Your task to perform on an android device: install app "LiveIn - Share Your Moment" Image 0: 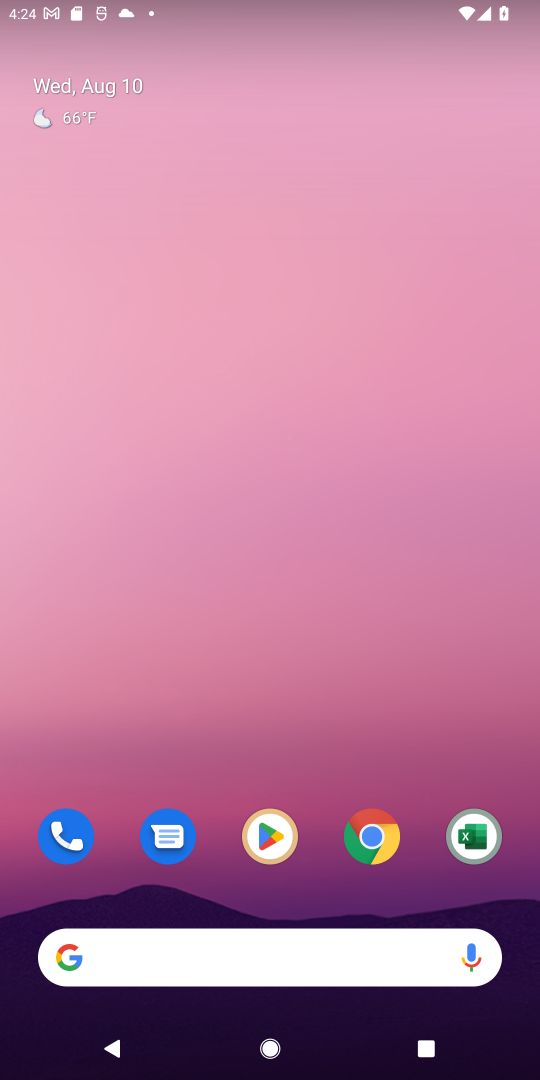
Step 0: drag from (114, 976) to (171, 398)
Your task to perform on an android device: install app "LiveIn - Share Your Moment" Image 1: 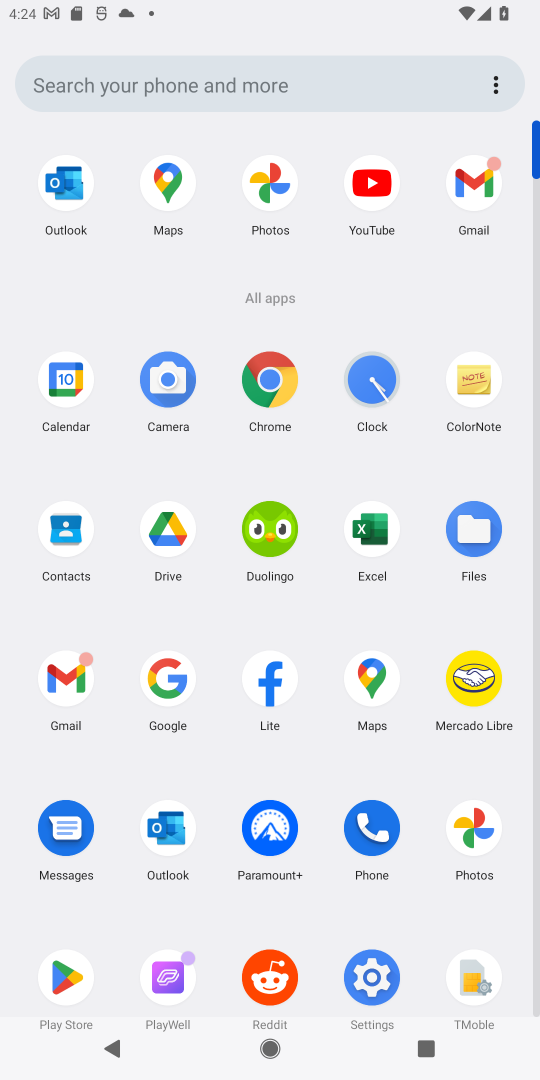
Step 1: drag from (210, 800) to (298, 254)
Your task to perform on an android device: install app "LiveIn - Share Your Moment" Image 2: 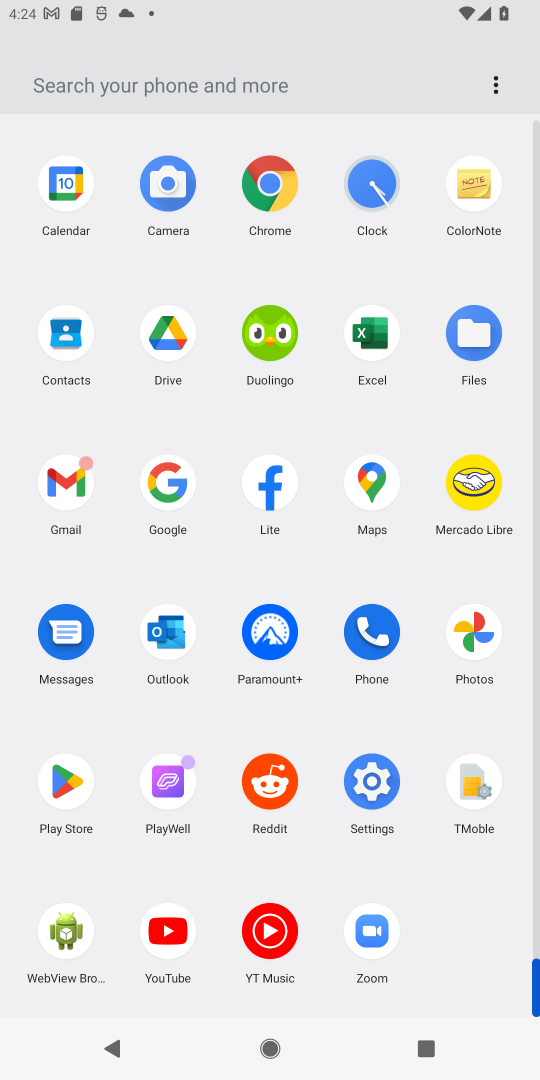
Step 2: click (61, 783)
Your task to perform on an android device: install app "LiveIn - Share Your Moment" Image 3: 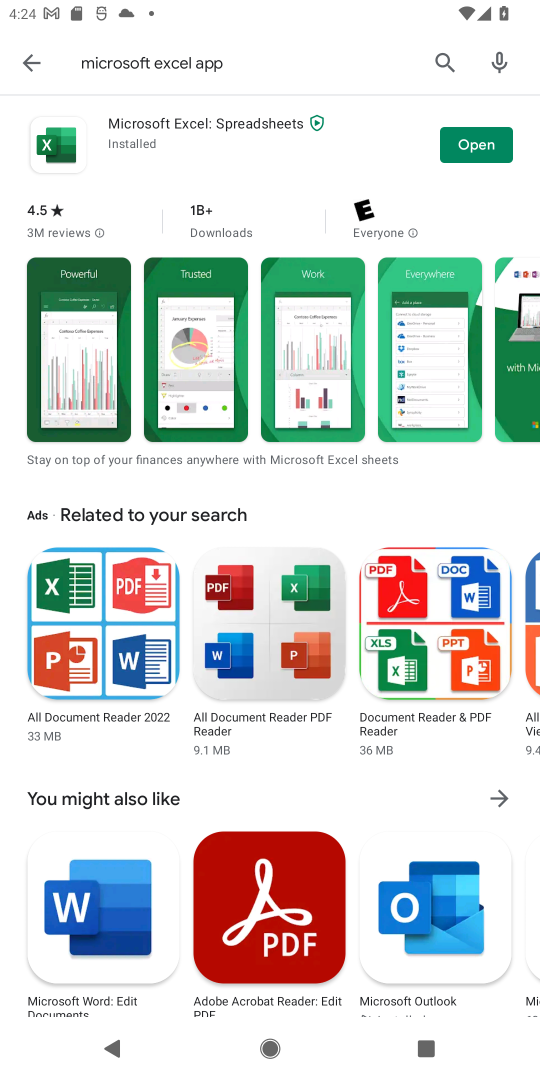
Step 3: click (34, 48)
Your task to perform on an android device: install app "LiveIn - Share Your Moment" Image 4: 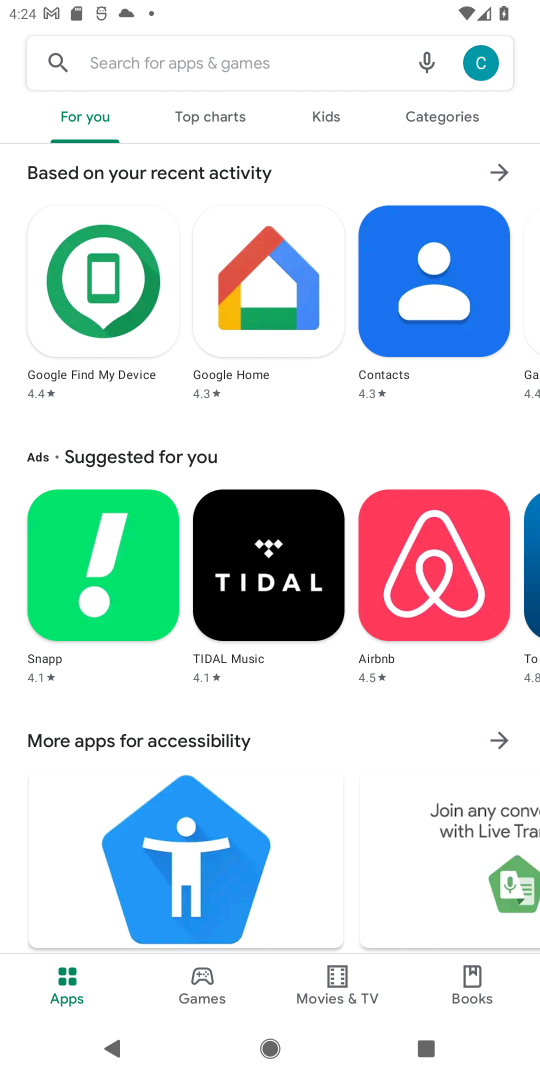
Step 4: click (294, 57)
Your task to perform on an android device: install app "LiveIn - Share Your Moment" Image 5: 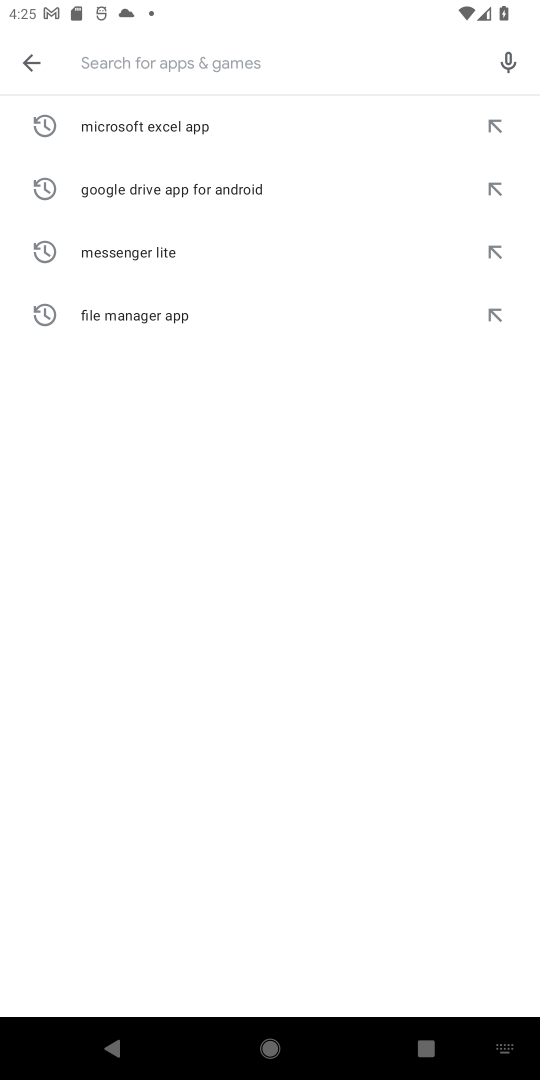
Step 5: type ""LiveIn  "
Your task to perform on an android device: install app "LiveIn - Share Your Moment" Image 6: 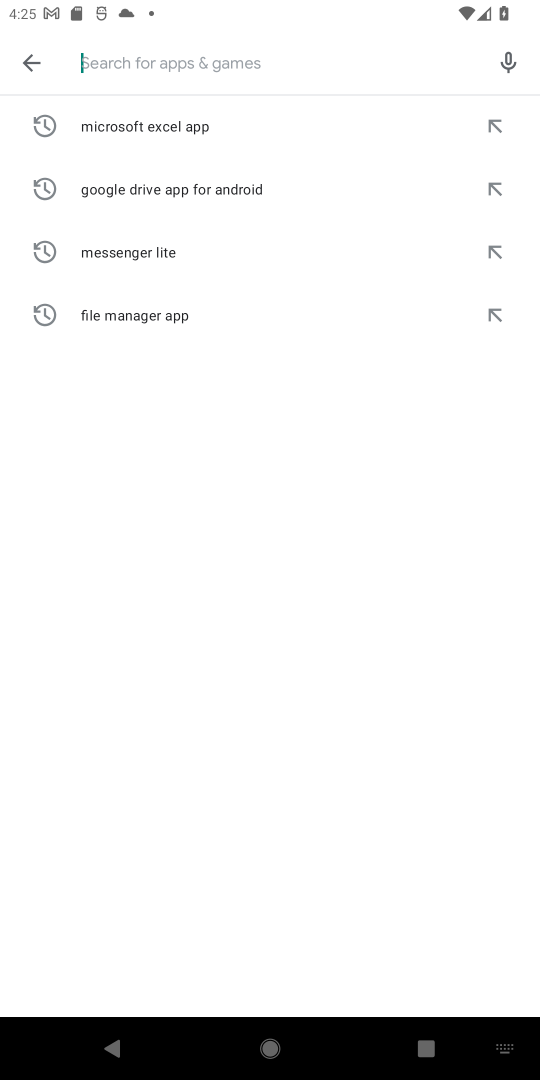
Step 6: click (219, 54)
Your task to perform on an android device: install app "LiveIn - Share Your Moment" Image 7: 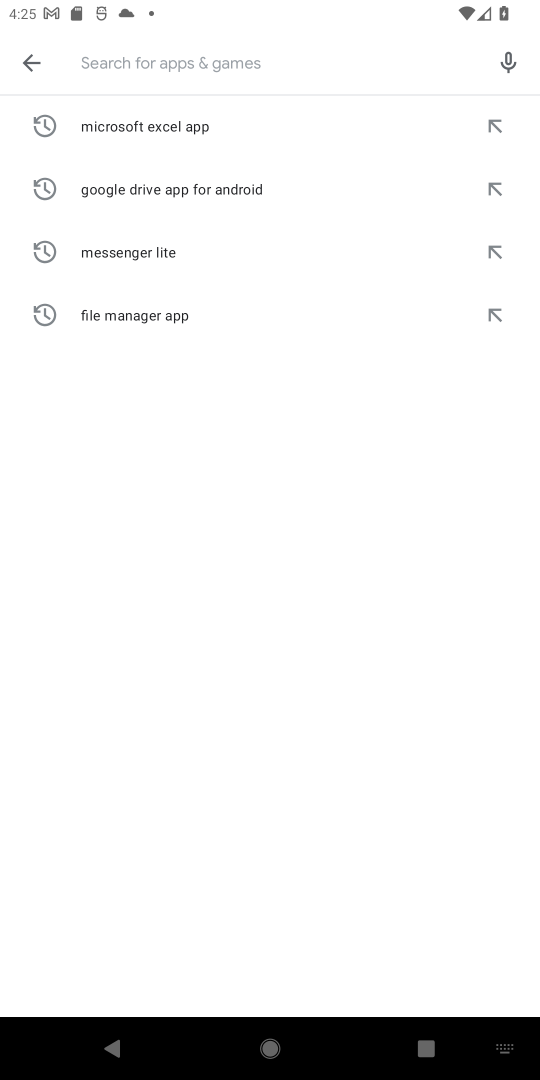
Step 7: type "liveln "
Your task to perform on an android device: install app "LiveIn - Share Your Moment" Image 8: 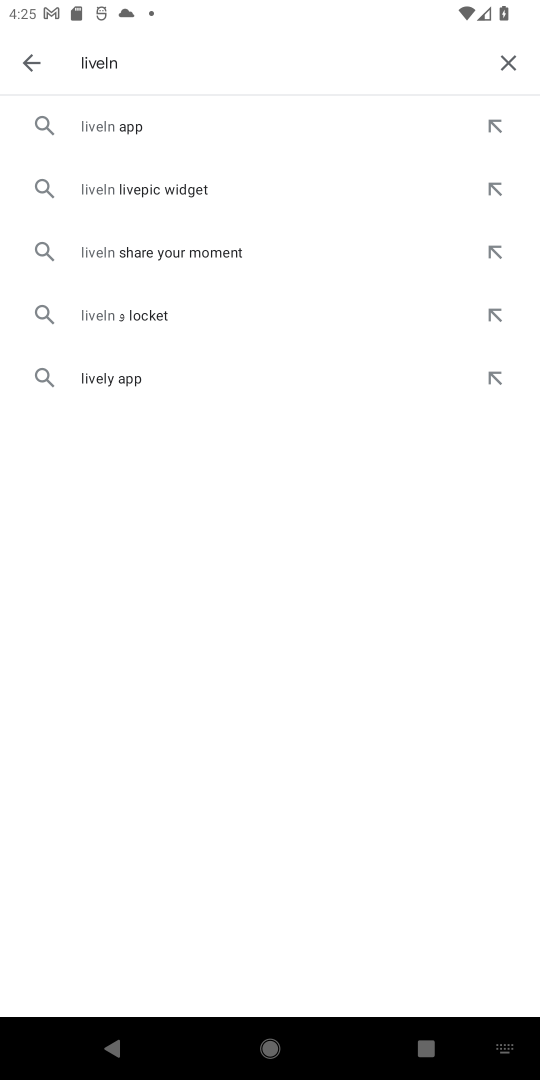
Step 8: click (204, 257)
Your task to perform on an android device: install app "LiveIn - Share Your Moment" Image 9: 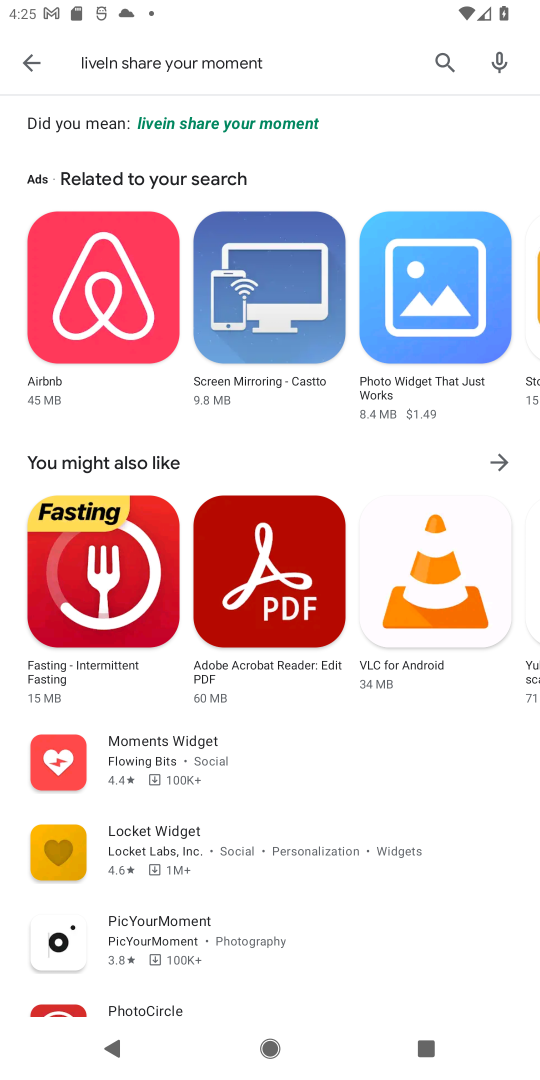
Step 9: click (240, 118)
Your task to perform on an android device: install app "LiveIn - Share Your Moment" Image 10: 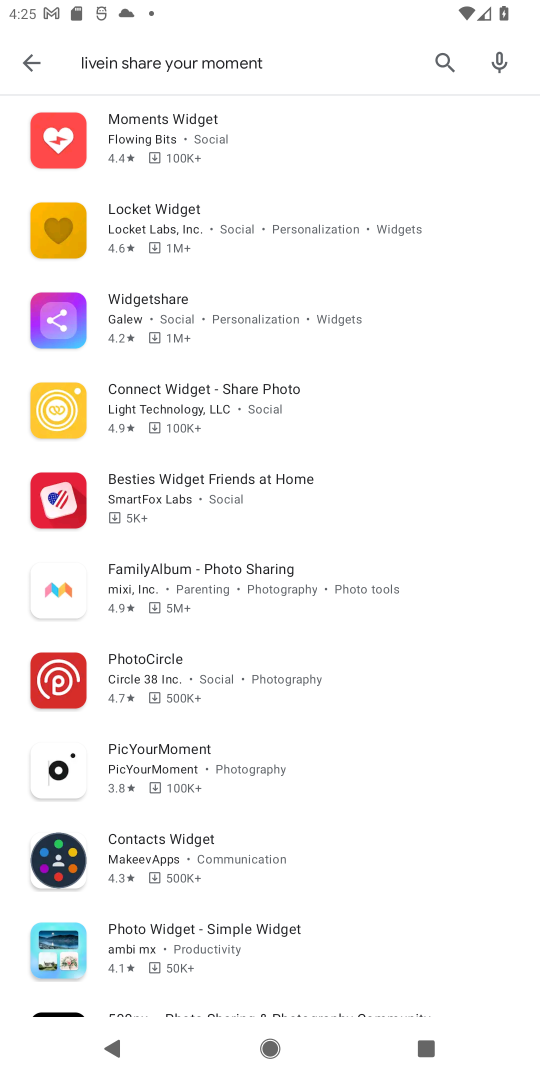
Step 10: task complete